Your task to perform on an android device: When is my next appointment? Image 0: 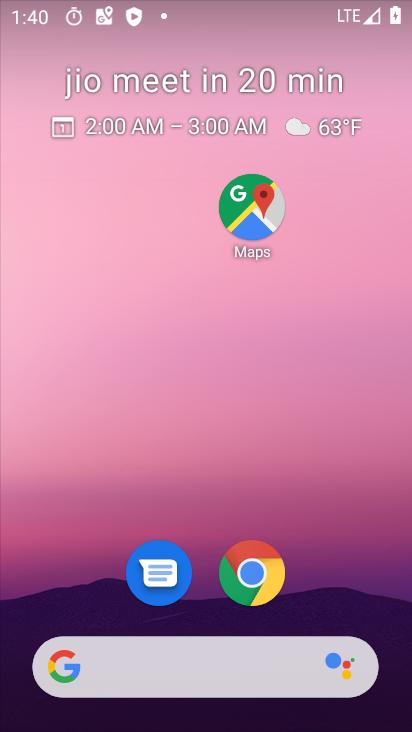
Step 0: drag from (222, 458) to (191, 79)
Your task to perform on an android device: When is my next appointment? Image 1: 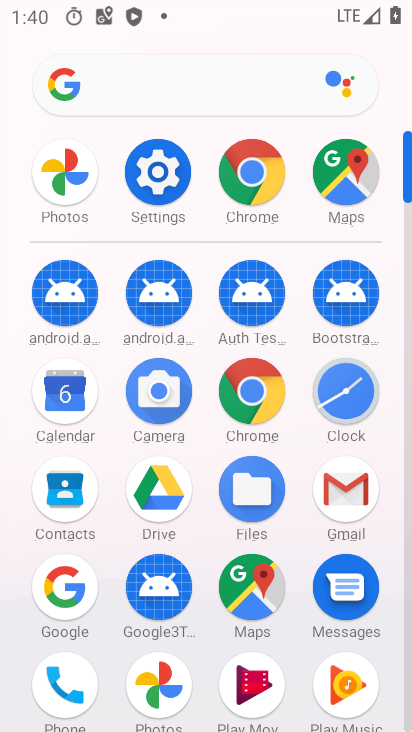
Step 1: click (75, 417)
Your task to perform on an android device: When is my next appointment? Image 2: 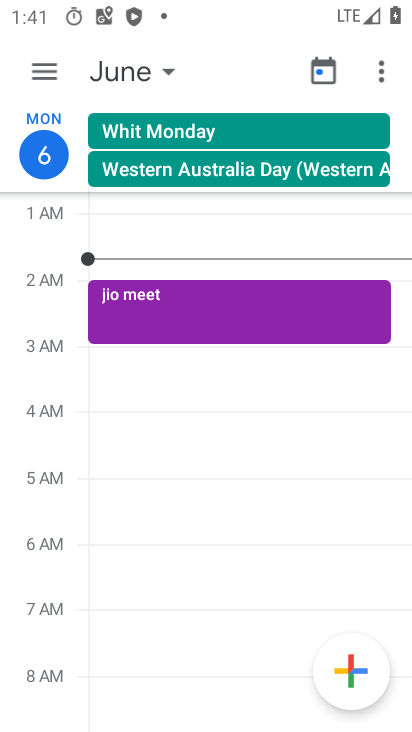
Step 2: task complete